Your task to perform on an android device: Go to ESPN.com Image 0: 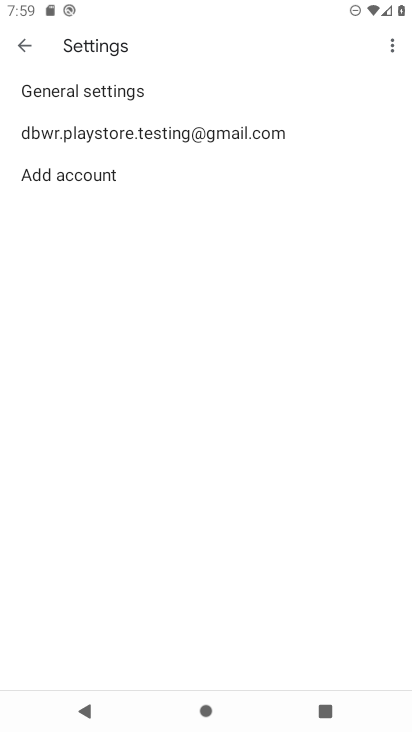
Step 0: press home button
Your task to perform on an android device: Go to ESPN.com Image 1: 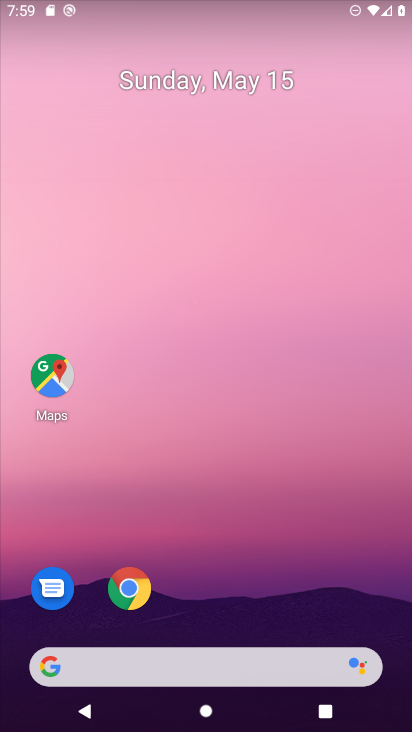
Step 1: click (126, 585)
Your task to perform on an android device: Go to ESPN.com Image 2: 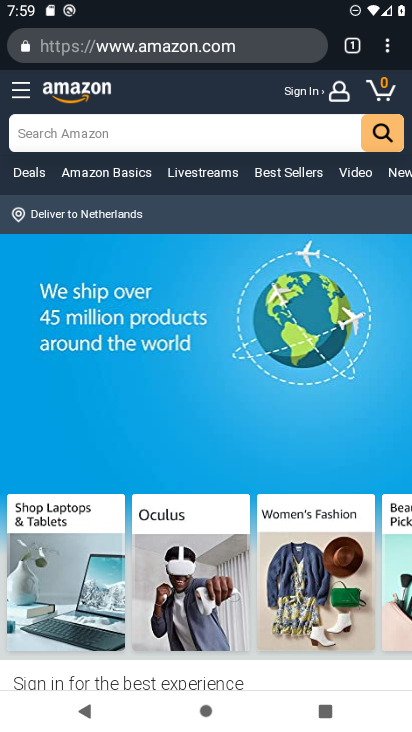
Step 2: click (343, 47)
Your task to perform on an android device: Go to ESPN.com Image 3: 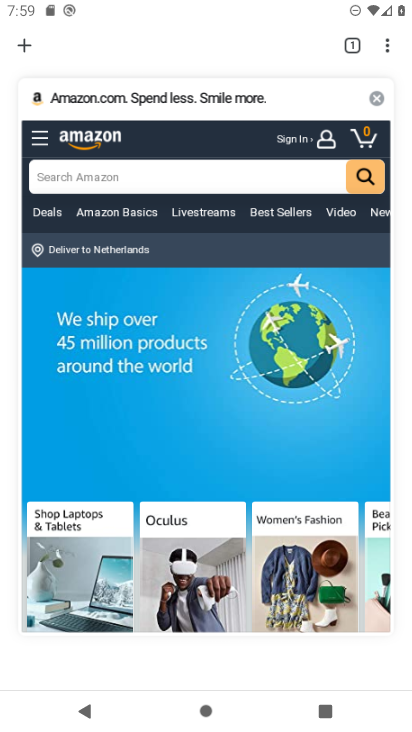
Step 3: click (377, 98)
Your task to perform on an android device: Go to ESPN.com Image 4: 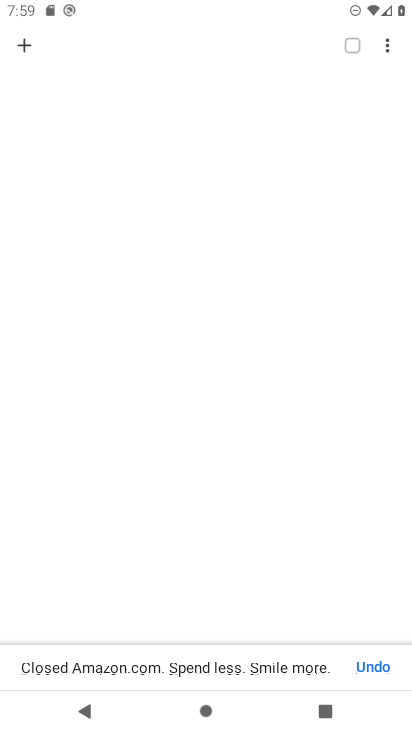
Step 4: click (23, 44)
Your task to perform on an android device: Go to ESPN.com Image 5: 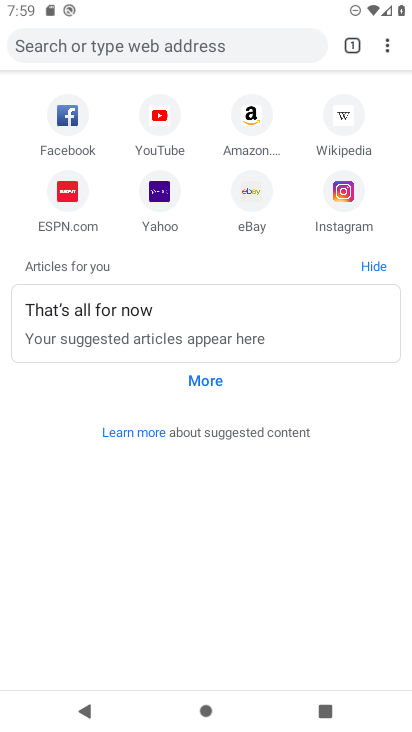
Step 5: click (62, 184)
Your task to perform on an android device: Go to ESPN.com Image 6: 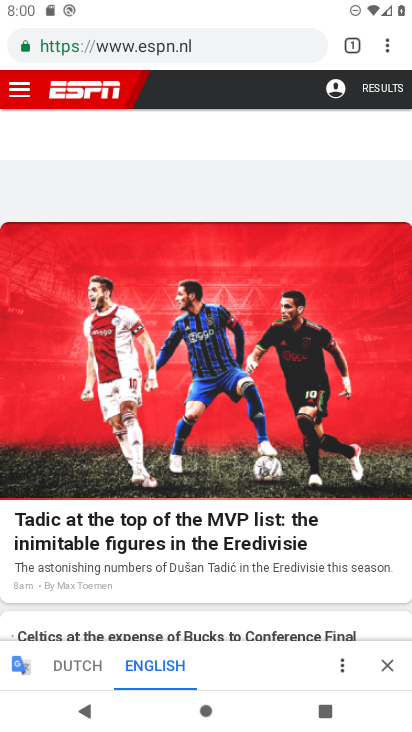
Step 6: task complete